Your task to perform on an android device: Go to Google Image 0: 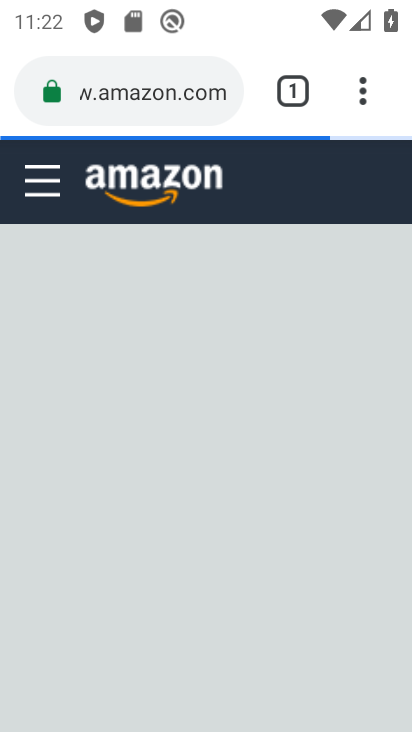
Step 0: press home button
Your task to perform on an android device: Go to Google Image 1: 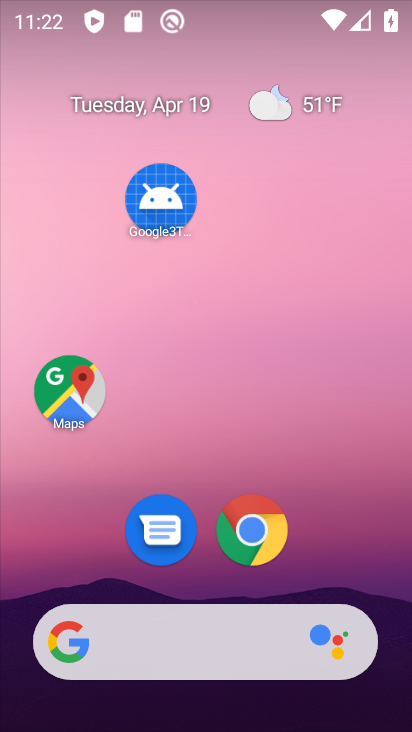
Step 1: drag from (345, 564) to (374, 88)
Your task to perform on an android device: Go to Google Image 2: 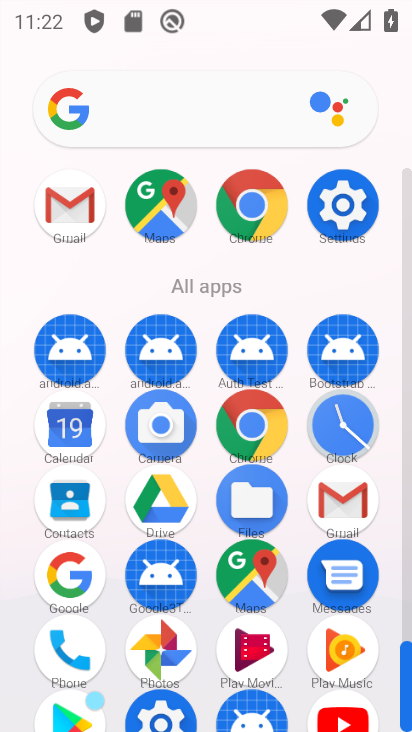
Step 2: click (66, 588)
Your task to perform on an android device: Go to Google Image 3: 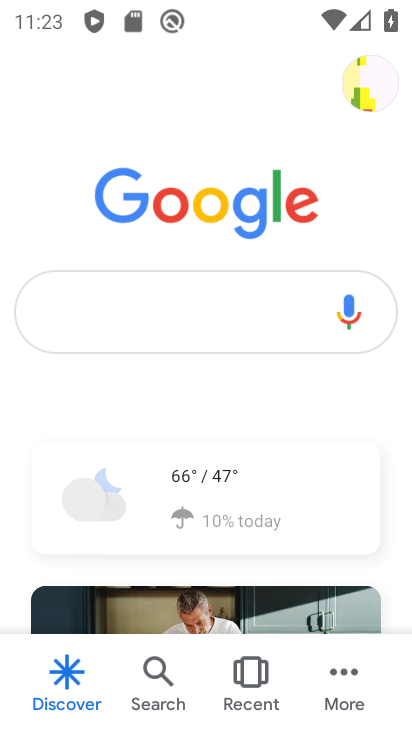
Step 3: task complete